Your task to perform on an android device: Open Google Maps and go to "Timeline" Image 0: 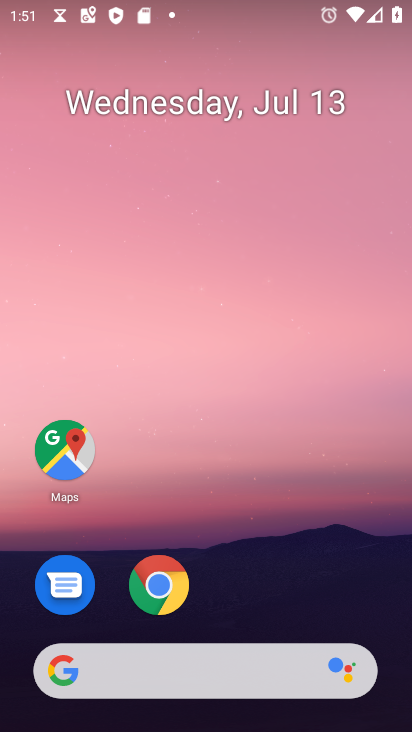
Step 0: click (74, 465)
Your task to perform on an android device: Open Google Maps and go to "Timeline" Image 1: 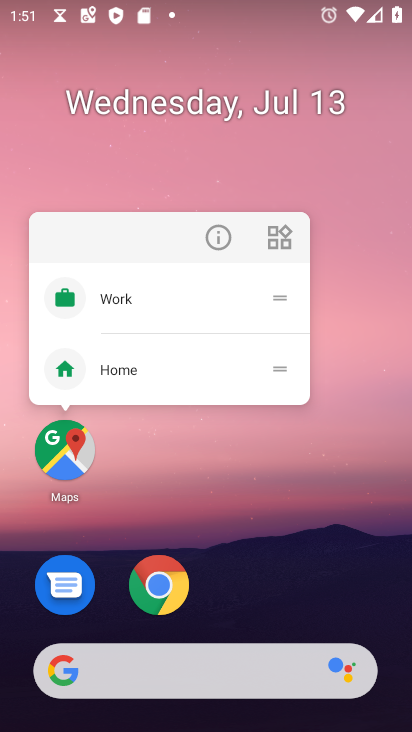
Step 1: click (65, 463)
Your task to perform on an android device: Open Google Maps and go to "Timeline" Image 2: 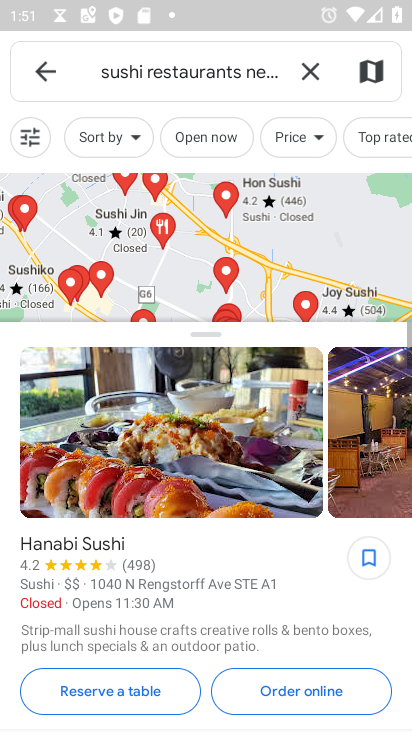
Step 2: click (45, 80)
Your task to perform on an android device: Open Google Maps and go to "Timeline" Image 3: 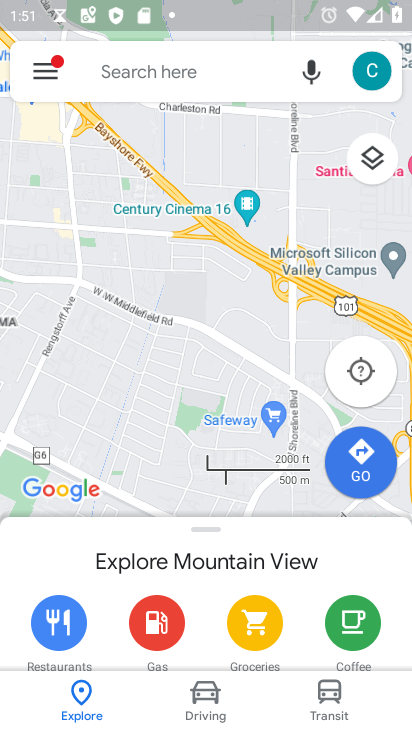
Step 3: click (46, 73)
Your task to perform on an android device: Open Google Maps and go to "Timeline" Image 4: 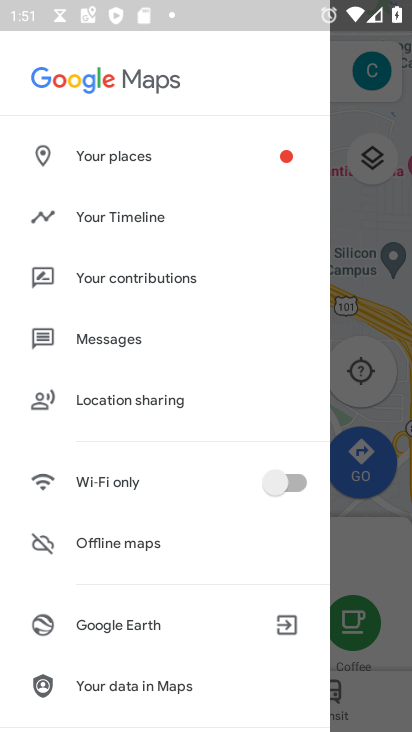
Step 4: click (125, 208)
Your task to perform on an android device: Open Google Maps and go to "Timeline" Image 5: 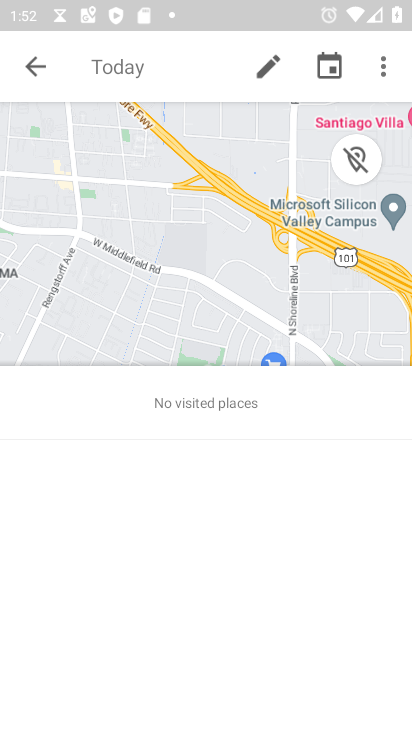
Step 5: task complete